Your task to perform on an android device: Open Google Maps and go to "Timeline" Image 0: 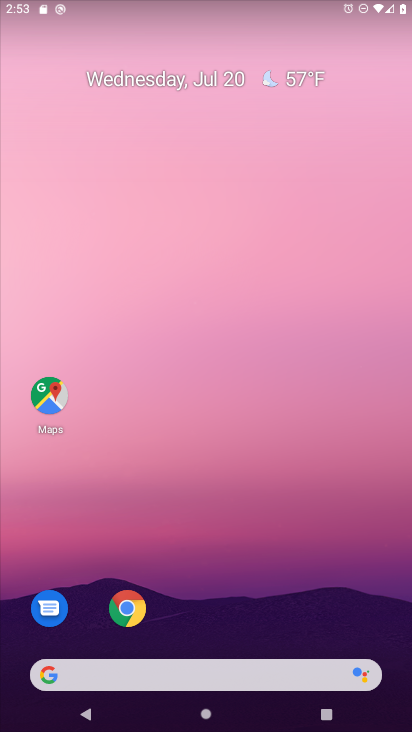
Step 0: click (47, 388)
Your task to perform on an android device: Open Google Maps and go to "Timeline" Image 1: 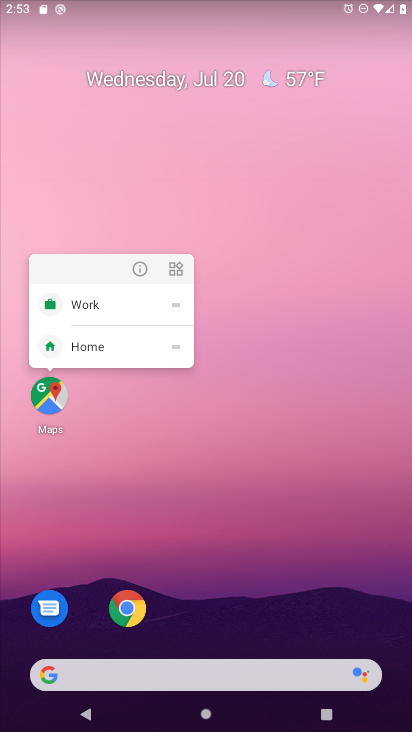
Step 1: click (60, 412)
Your task to perform on an android device: Open Google Maps and go to "Timeline" Image 2: 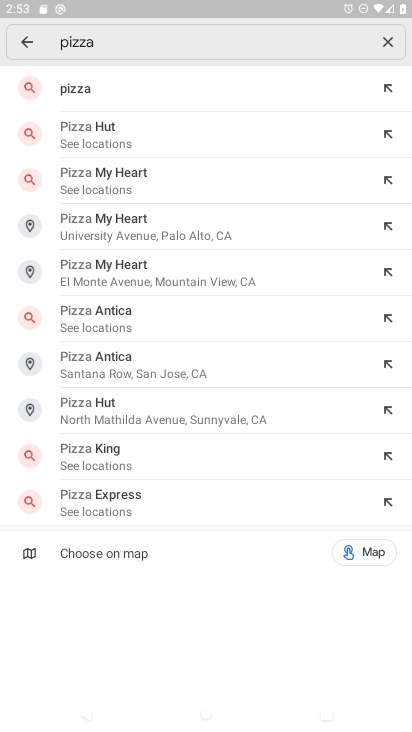
Step 2: click (384, 40)
Your task to perform on an android device: Open Google Maps and go to "Timeline" Image 3: 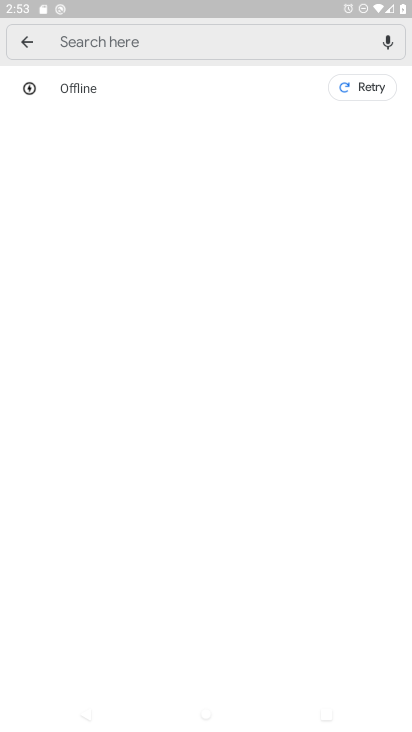
Step 3: click (26, 40)
Your task to perform on an android device: Open Google Maps and go to "Timeline" Image 4: 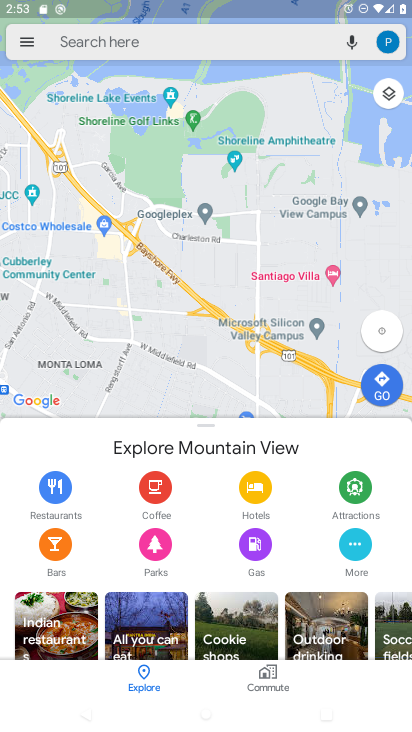
Step 4: click (25, 46)
Your task to perform on an android device: Open Google Maps and go to "Timeline" Image 5: 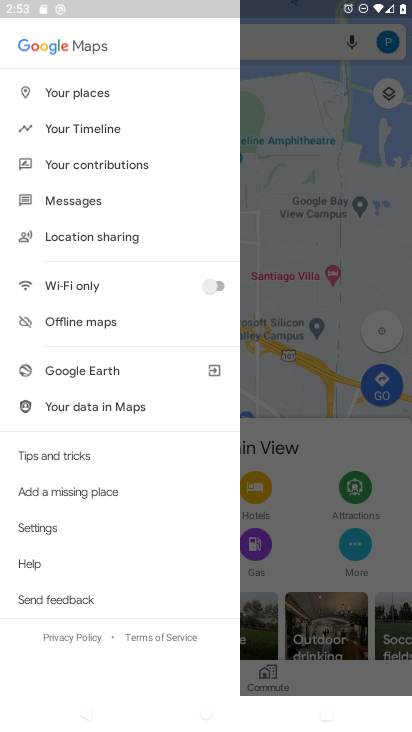
Step 5: click (112, 125)
Your task to perform on an android device: Open Google Maps and go to "Timeline" Image 6: 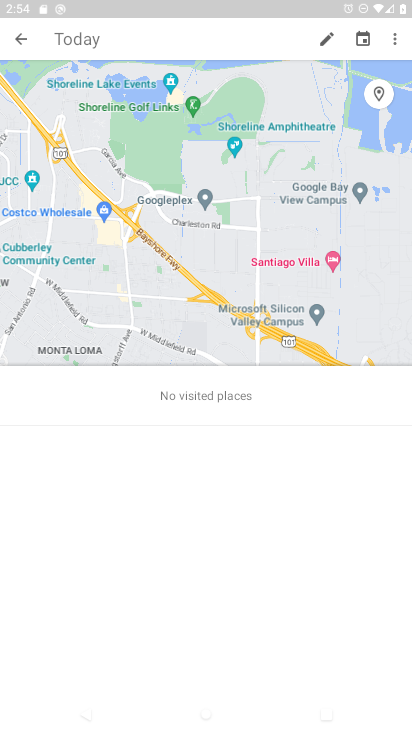
Step 6: task complete